Your task to perform on an android device: turn on showing notifications on the lock screen Image 0: 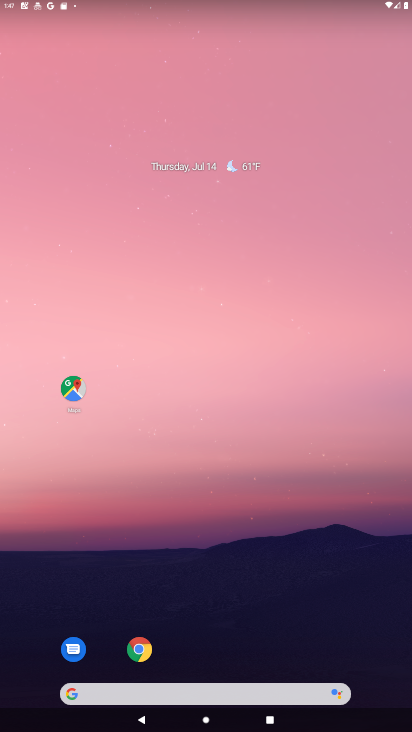
Step 0: click (278, 156)
Your task to perform on an android device: turn on showing notifications on the lock screen Image 1: 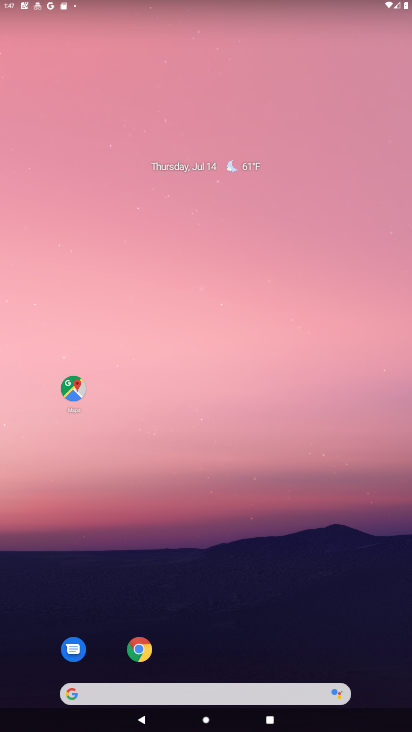
Step 1: drag from (288, 659) to (326, 14)
Your task to perform on an android device: turn on showing notifications on the lock screen Image 2: 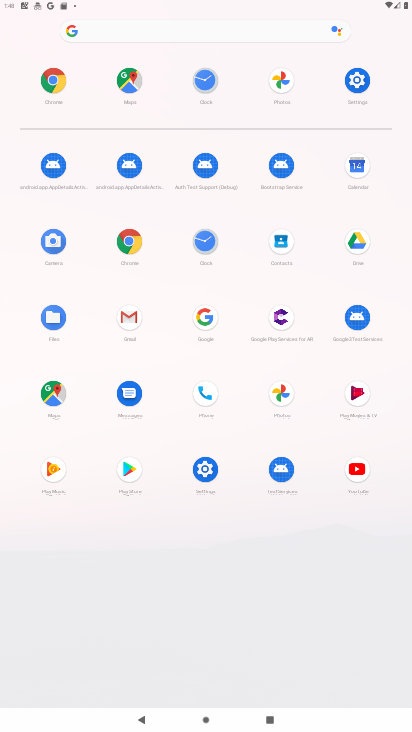
Step 2: drag from (188, 680) to (220, 158)
Your task to perform on an android device: turn on showing notifications on the lock screen Image 3: 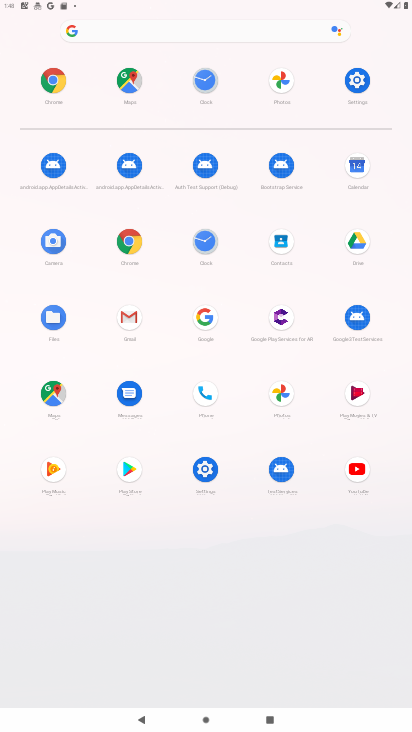
Step 3: click (360, 88)
Your task to perform on an android device: turn on showing notifications on the lock screen Image 4: 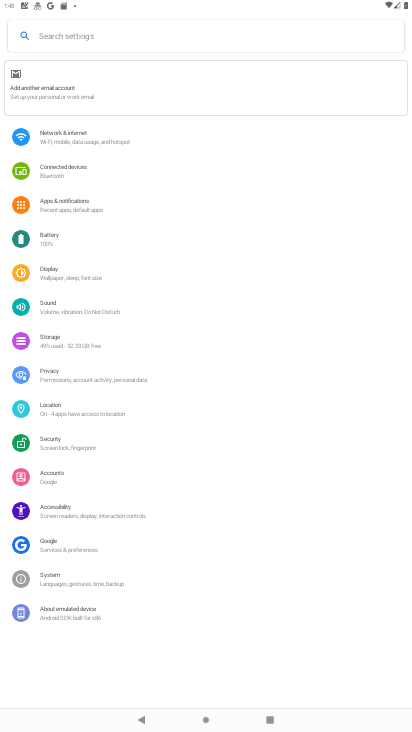
Step 4: click (75, 207)
Your task to perform on an android device: turn on showing notifications on the lock screen Image 5: 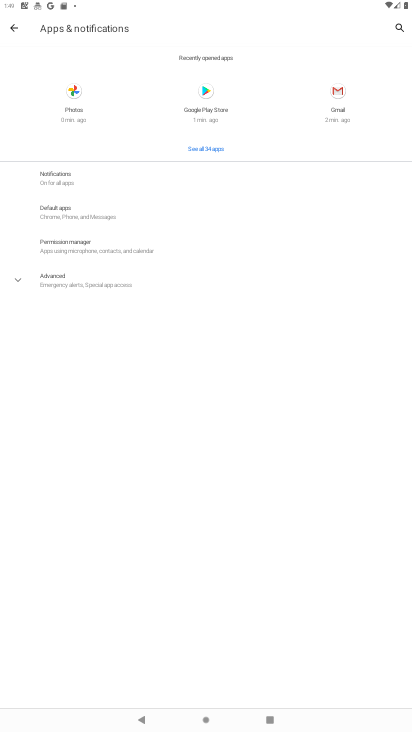
Step 5: click (65, 180)
Your task to perform on an android device: turn on showing notifications on the lock screen Image 6: 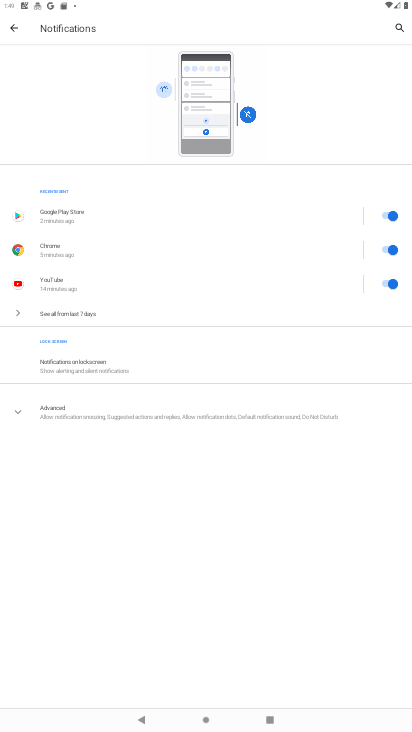
Step 6: click (101, 359)
Your task to perform on an android device: turn on showing notifications on the lock screen Image 7: 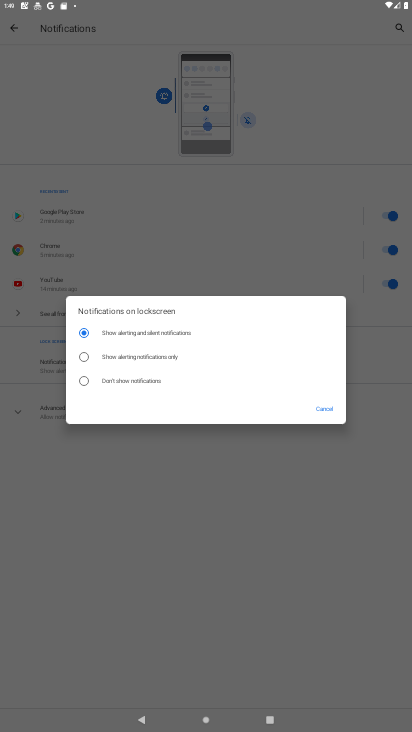
Step 7: task complete